Your task to perform on an android device: install app "Walmart Shopping & Grocery" Image 0: 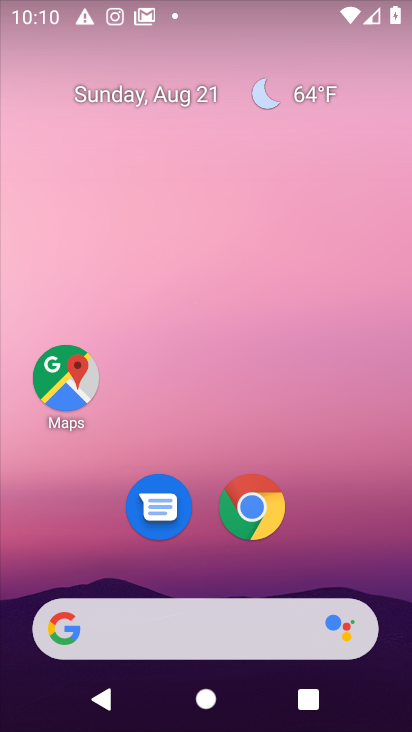
Step 0: drag from (189, 580) to (184, 215)
Your task to perform on an android device: install app "Walmart Shopping & Grocery" Image 1: 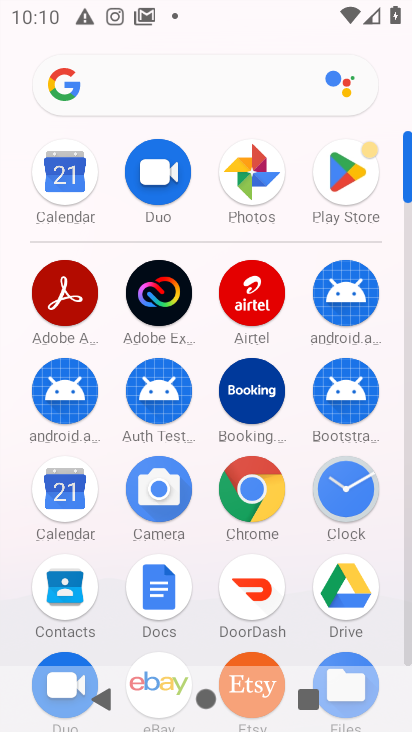
Step 1: click (351, 165)
Your task to perform on an android device: install app "Walmart Shopping & Grocery" Image 2: 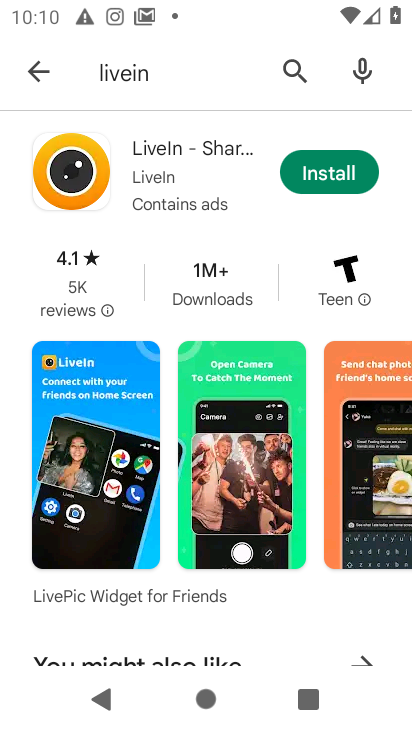
Step 2: click (36, 63)
Your task to perform on an android device: install app "Walmart Shopping & Grocery" Image 3: 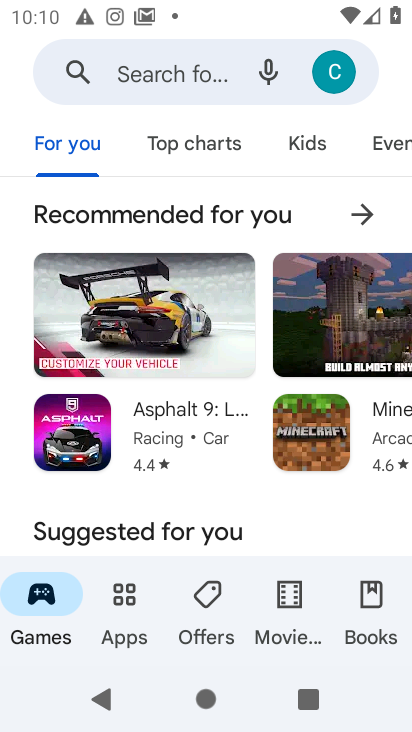
Step 3: click (131, 63)
Your task to perform on an android device: install app "Walmart Shopping & Grocery" Image 4: 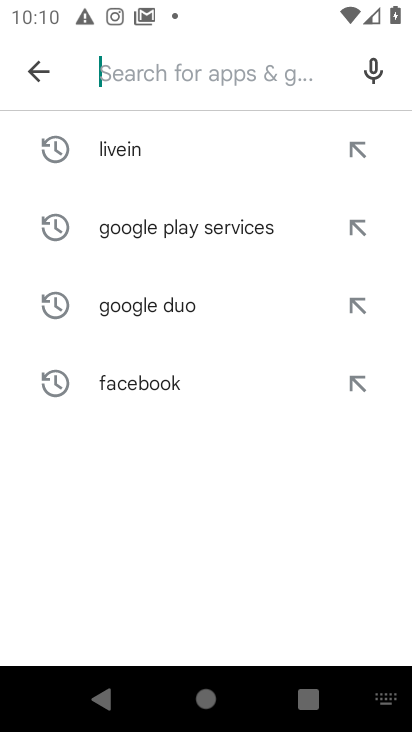
Step 4: type "Walmart Shopping & Grocery"
Your task to perform on an android device: install app "Walmart Shopping & Grocery" Image 5: 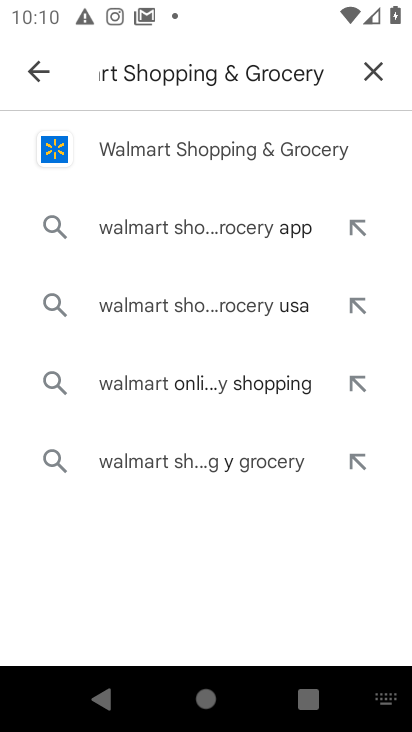
Step 5: click (219, 149)
Your task to perform on an android device: install app "Walmart Shopping & Grocery" Image 6: 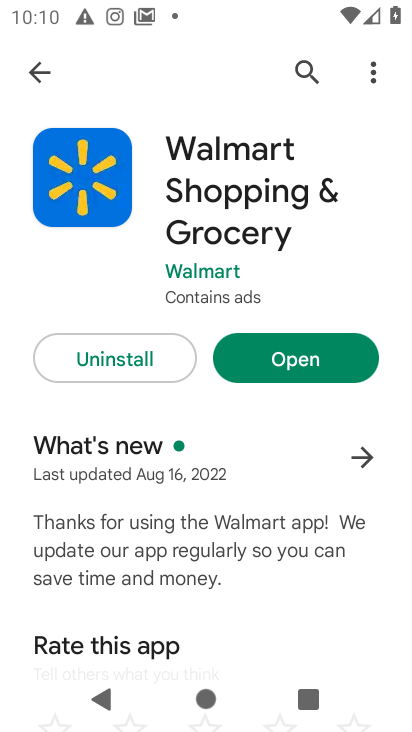
Step 6: click (260, 363)
Your task to perform on an android device: install app "Walmart Shopping & Grocery" Image 7: 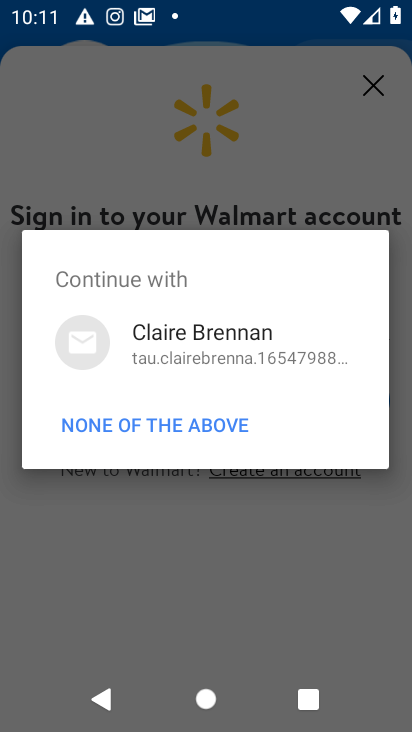
Step 7: click (260, 363)
Your task to perform on an android device: install app "Walmart Shopping & Grocery" Image 8: 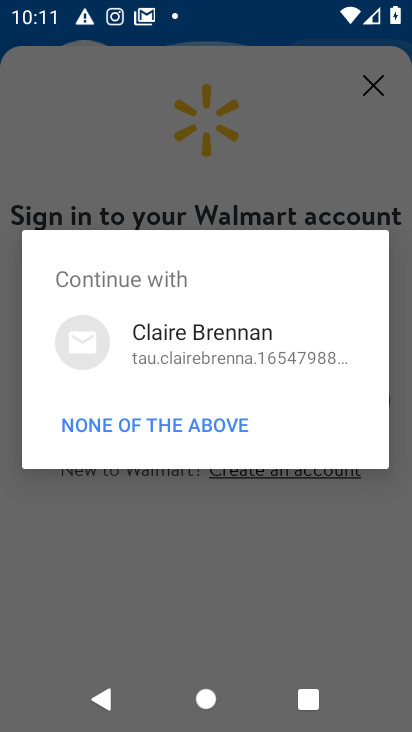
Step 8: click (260, 363)
Your task to perform on an android device: install app "Walmart Shopping & Grocery" Image 9: 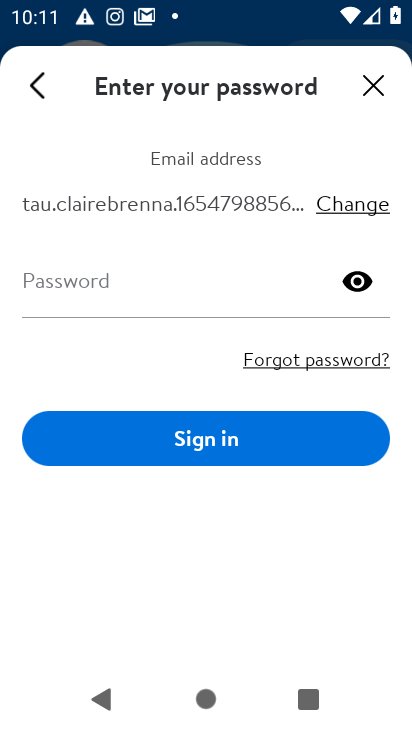
Step 9: task complete